Your task to perform on an android device: Show me the alarms in the clock app Image 0: 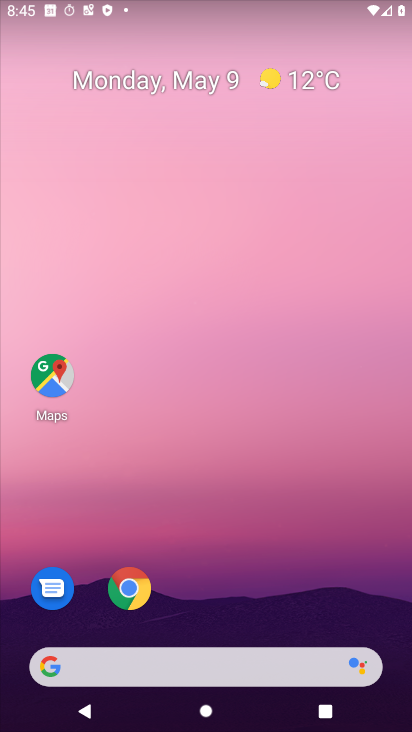
Step 0: drag from (177, 674) to (244, 223)
Your task to perform on an android device: Show me the alarms in the clock app Image 1: 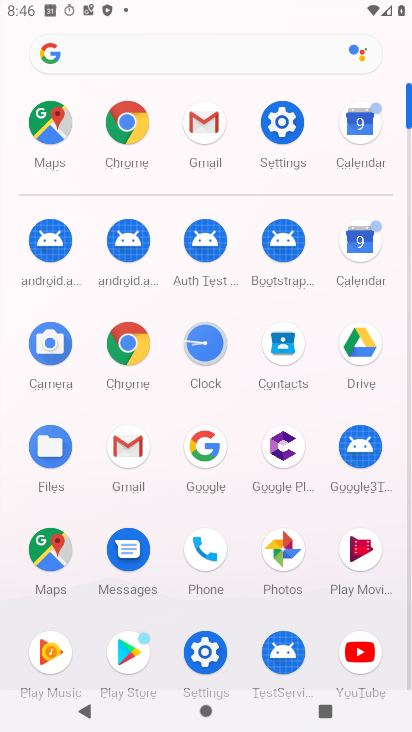
Step 1: click (202, 349)
Your task to perform on an android device: Show me the alarms in the clock app Image 2: 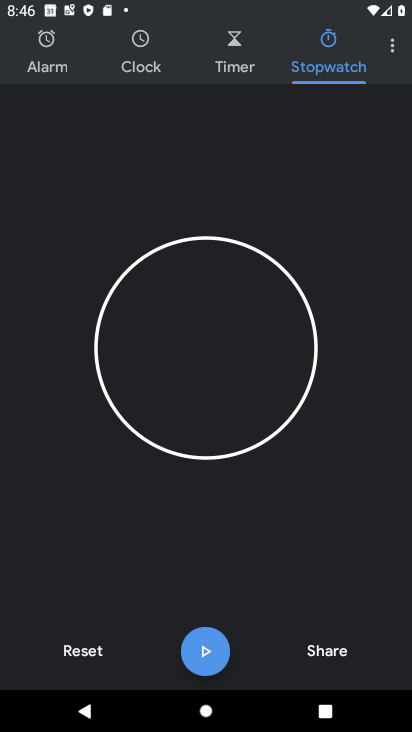
Step 2: click (59, 75)
Your task to perform on an android device: Show me the alarms in the clock app Image 3: 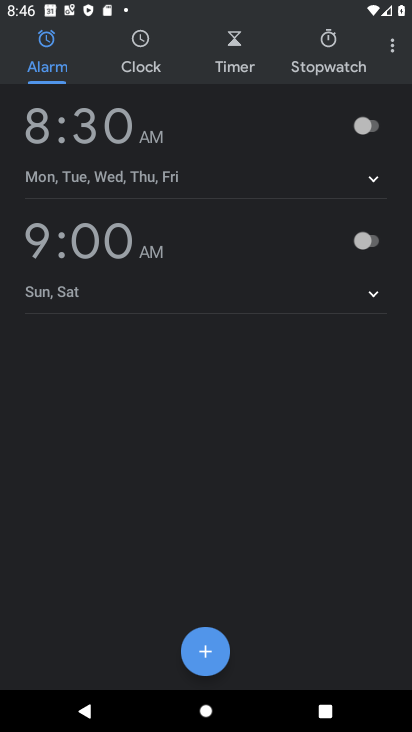
Step 3: task complete